Your task to perform on an android device: find snoozed emails in the gmail app Image 0: 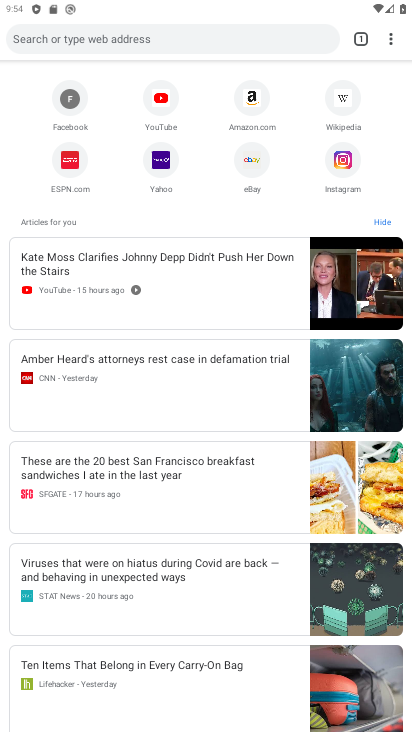
Step 0: press home button
Your task to perform on an android device: find snoozed emails in the gmail app Image 1: 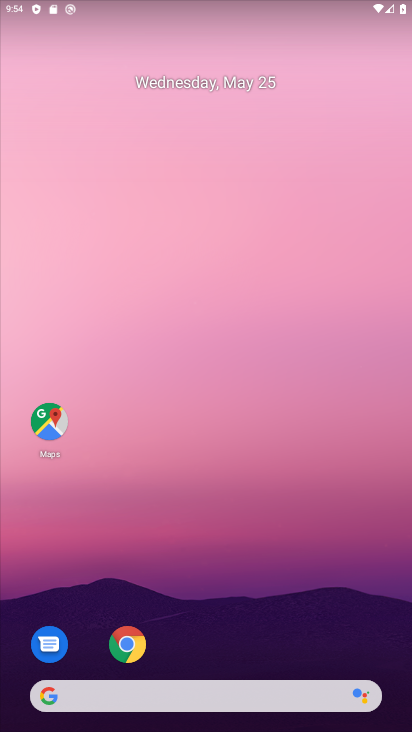
Step 1: drag from (254, 647) to (265, 48)
Your task to perform on an android device: find snoozed emails in the gmail app Image 2: 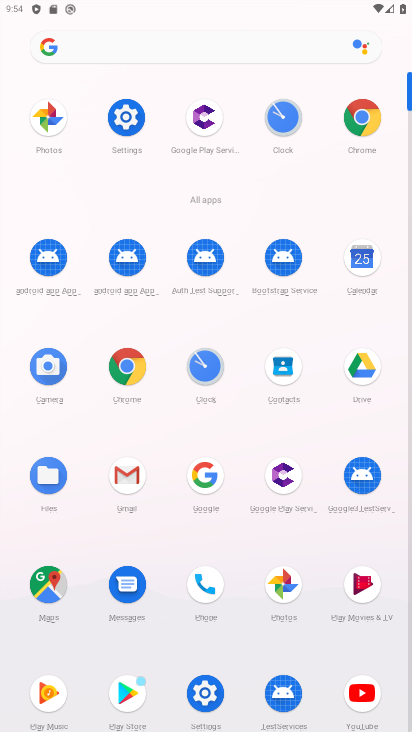
Step 2: click (122, 474)
Your task to perform on an android device: find snoozed emails in the gmail app Image 3: 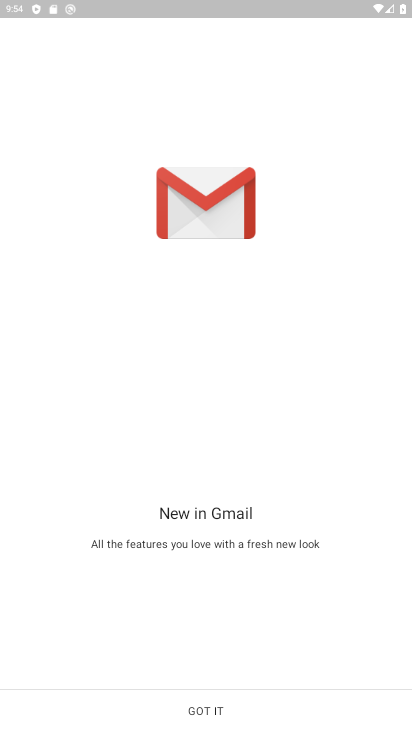
Step 3: click (168, 712)
Your task to perform on an android device: find snoozed emails in the gmail app Image 4: 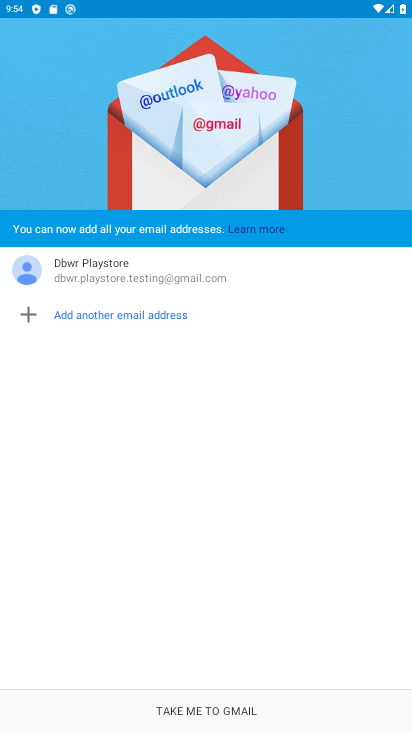
Step 4: click (172, 712)
Your task to perform on an android device: find snoozed emails in the gmail app Image 5: 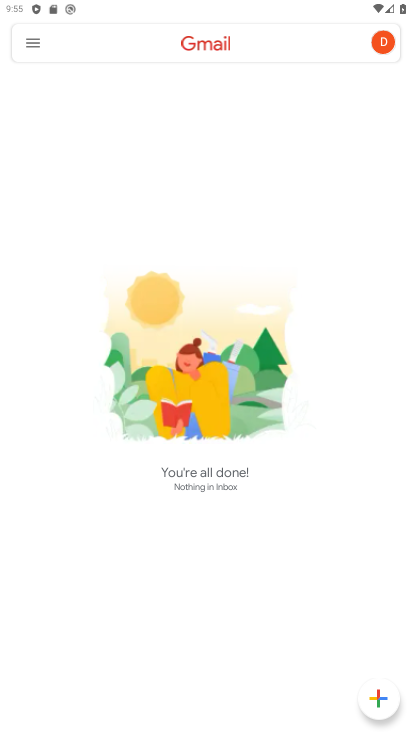
Step 5: click (23, 41)
Your task to perform on an android device: find snoozed emails in the gmail app Image 6: 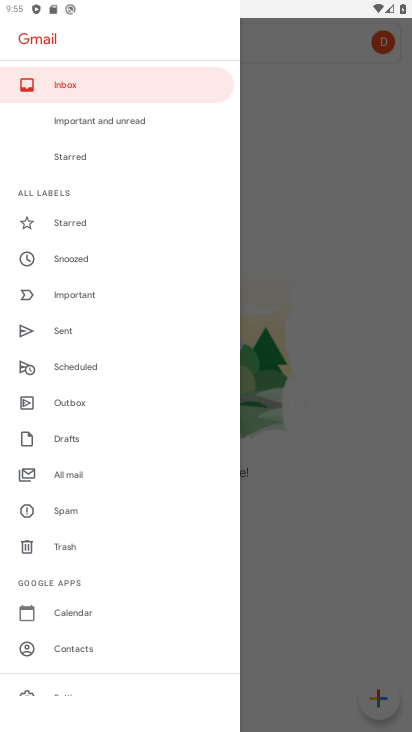
Step 6: click (66, 264)
Your task to perform on an android device: find snoozed emails in the gmail app Image 7: 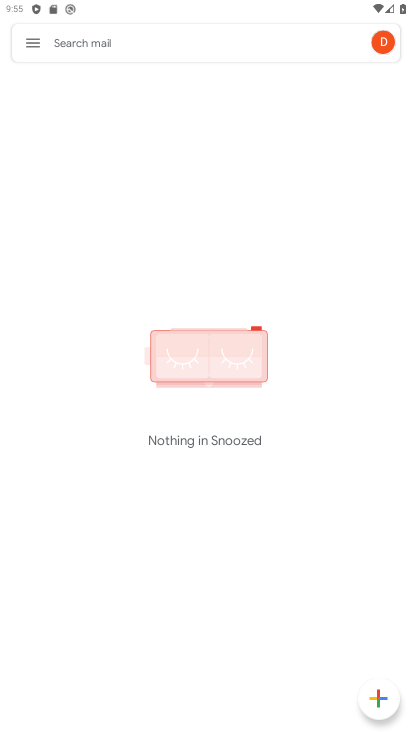
Step 7: task complete